Your task to perform on an android device: open app "Google Duo" Image 0: 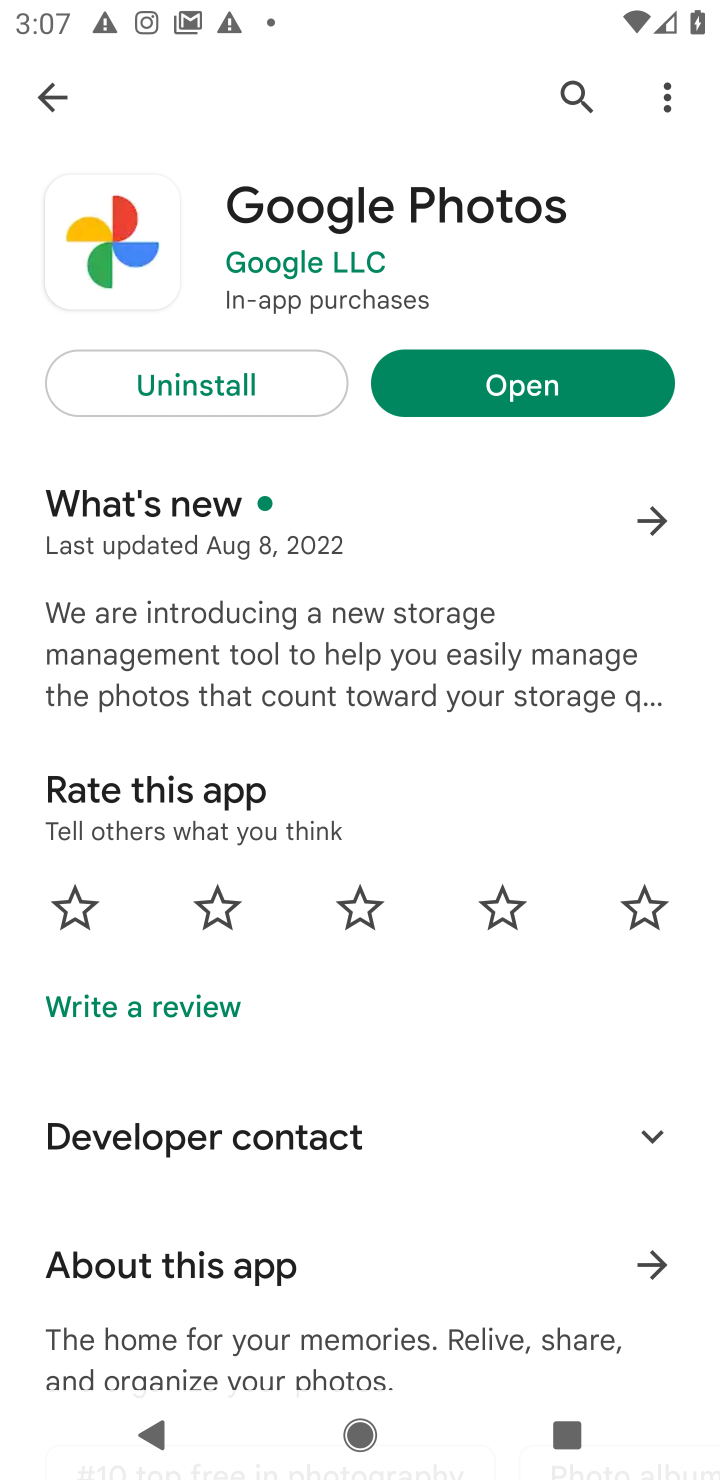
Step 0: press home button
Your task to perform on an android device: open app "Google Duo" Image 1: 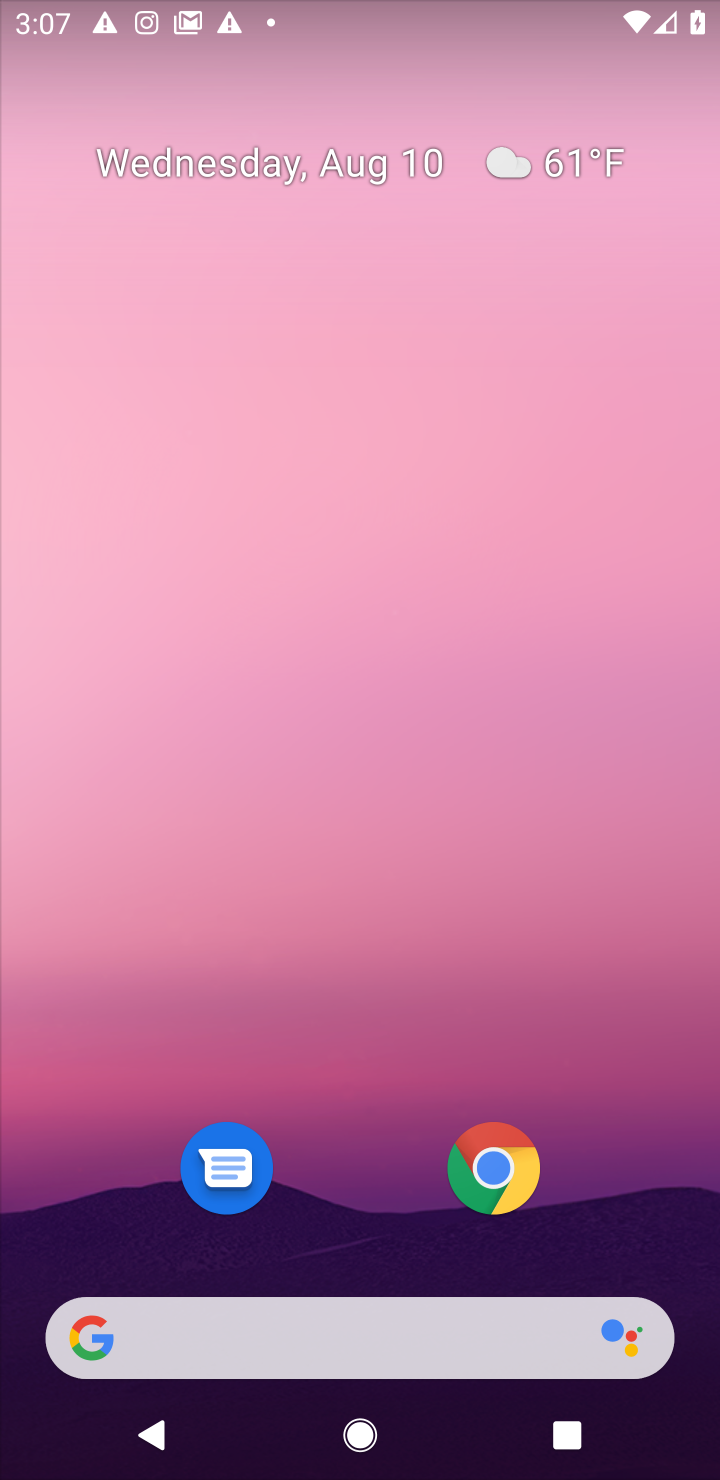
Step 1: drag from (330, 1309) to (302, 174)
Your task to perform on an android device: open app "Google Duo" Image 2: 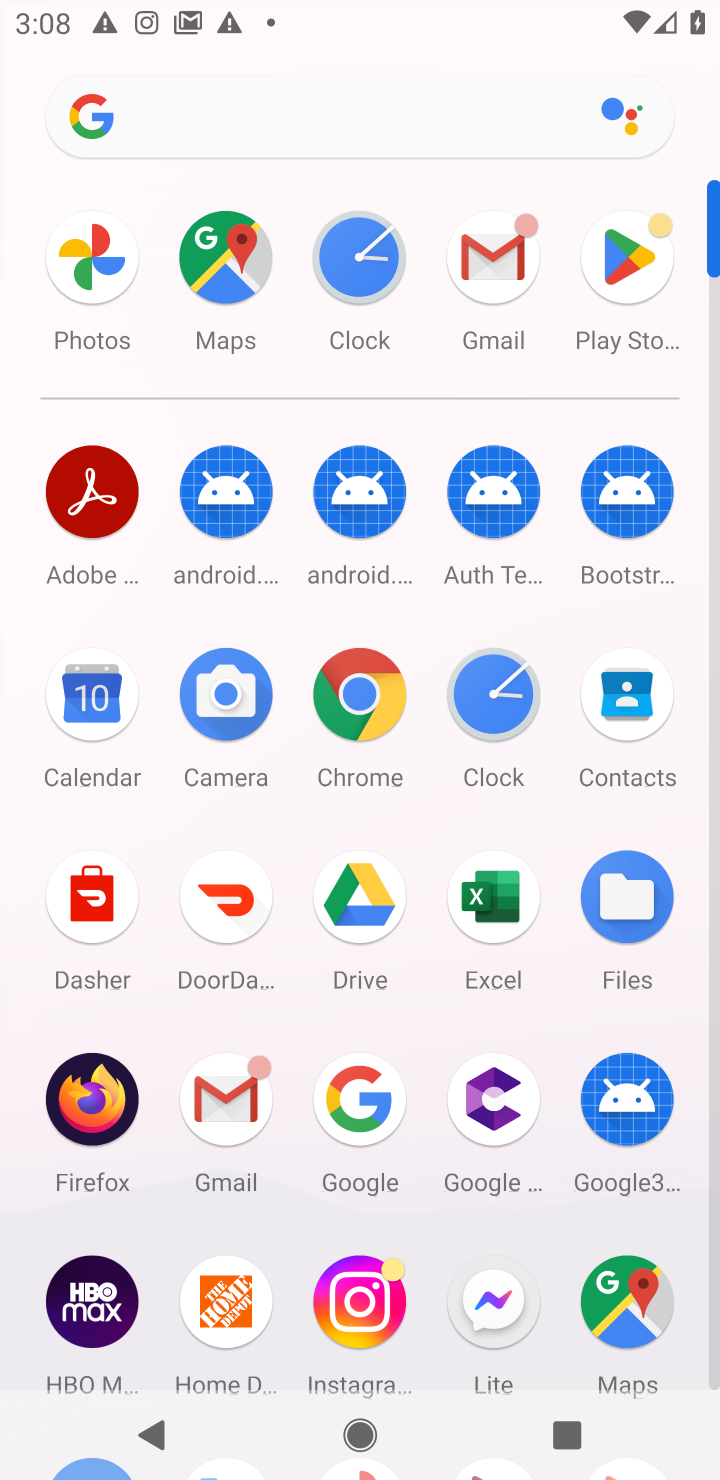
Step 2: click (628, 263)
Your task to perform on an android device: open app "Google Duo" Image 3: 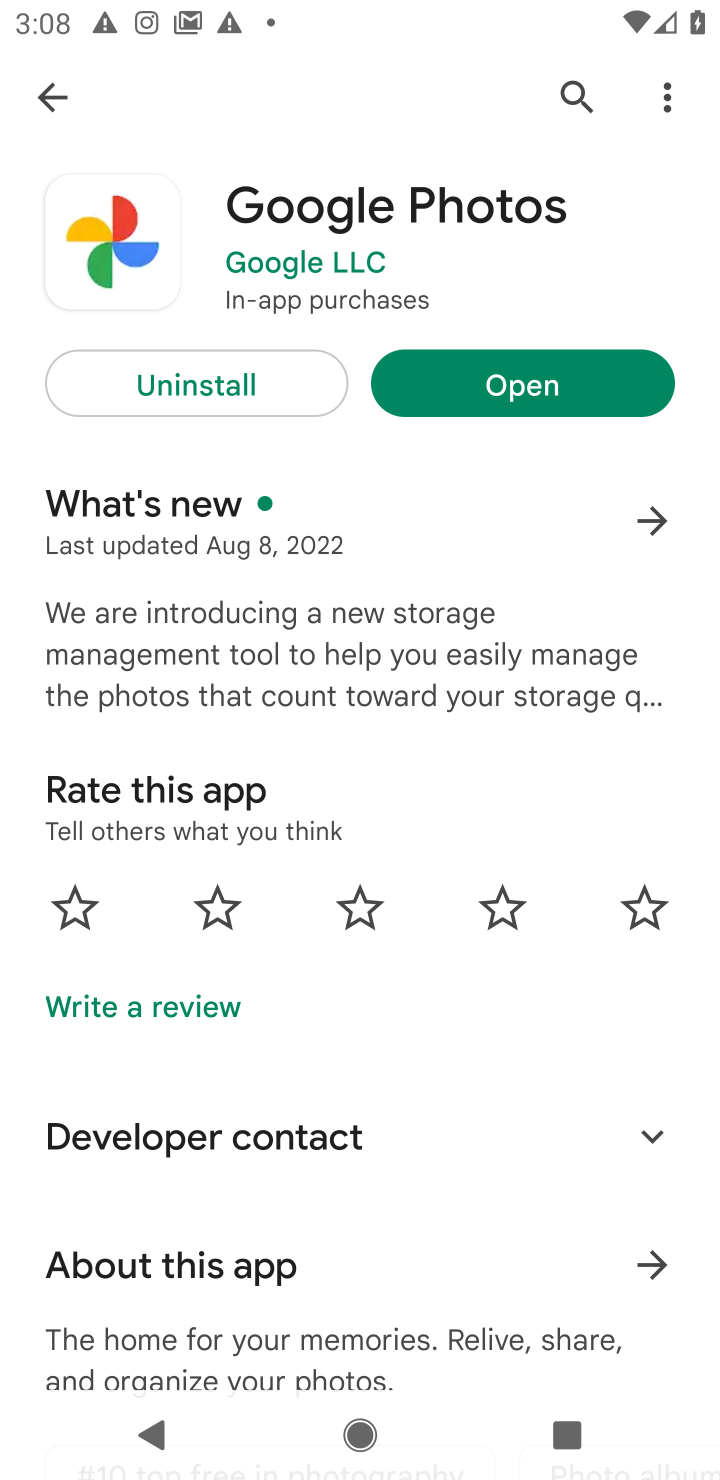
Step 3: press back button
Your task to perform on an android device: open app "Google Duo" Image 4: 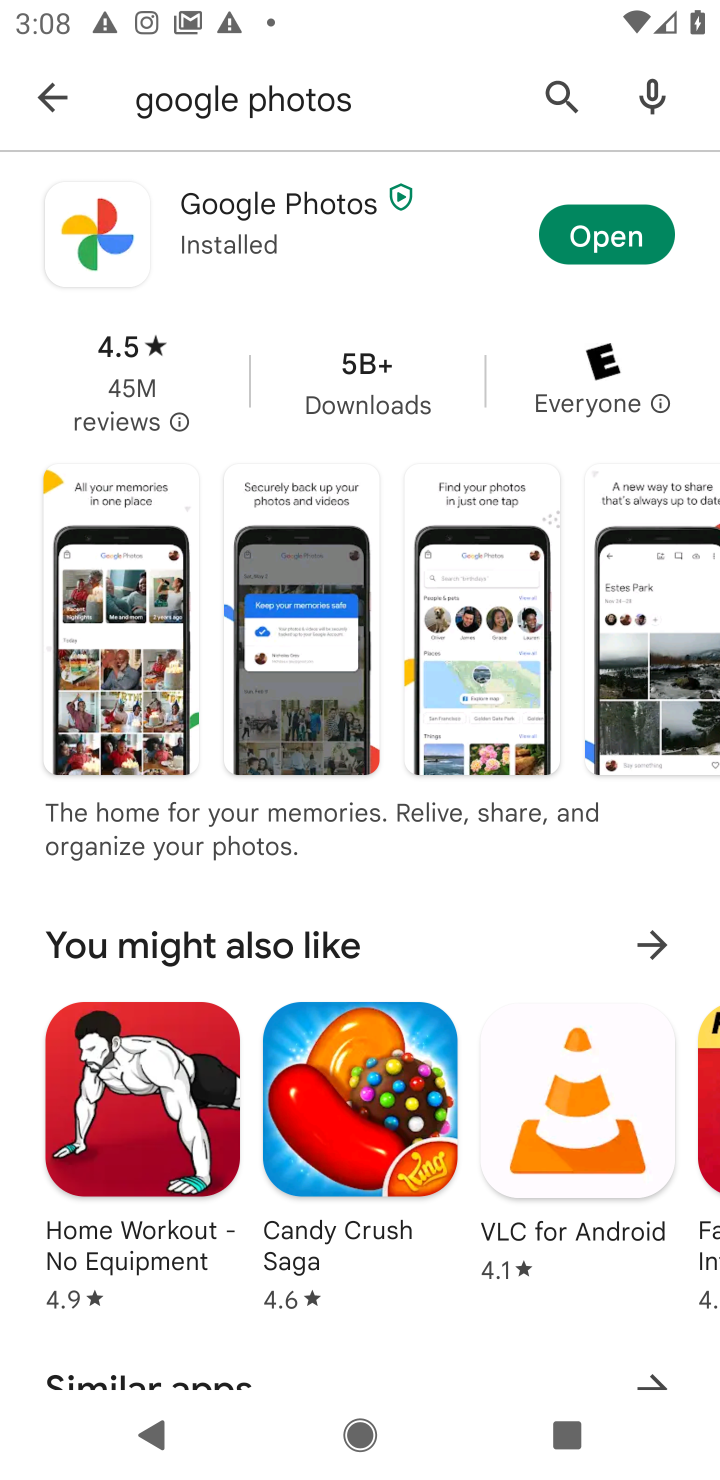
Step 4: press back button
Your task to perform on an android device: open app "Google Duo" Image 5: 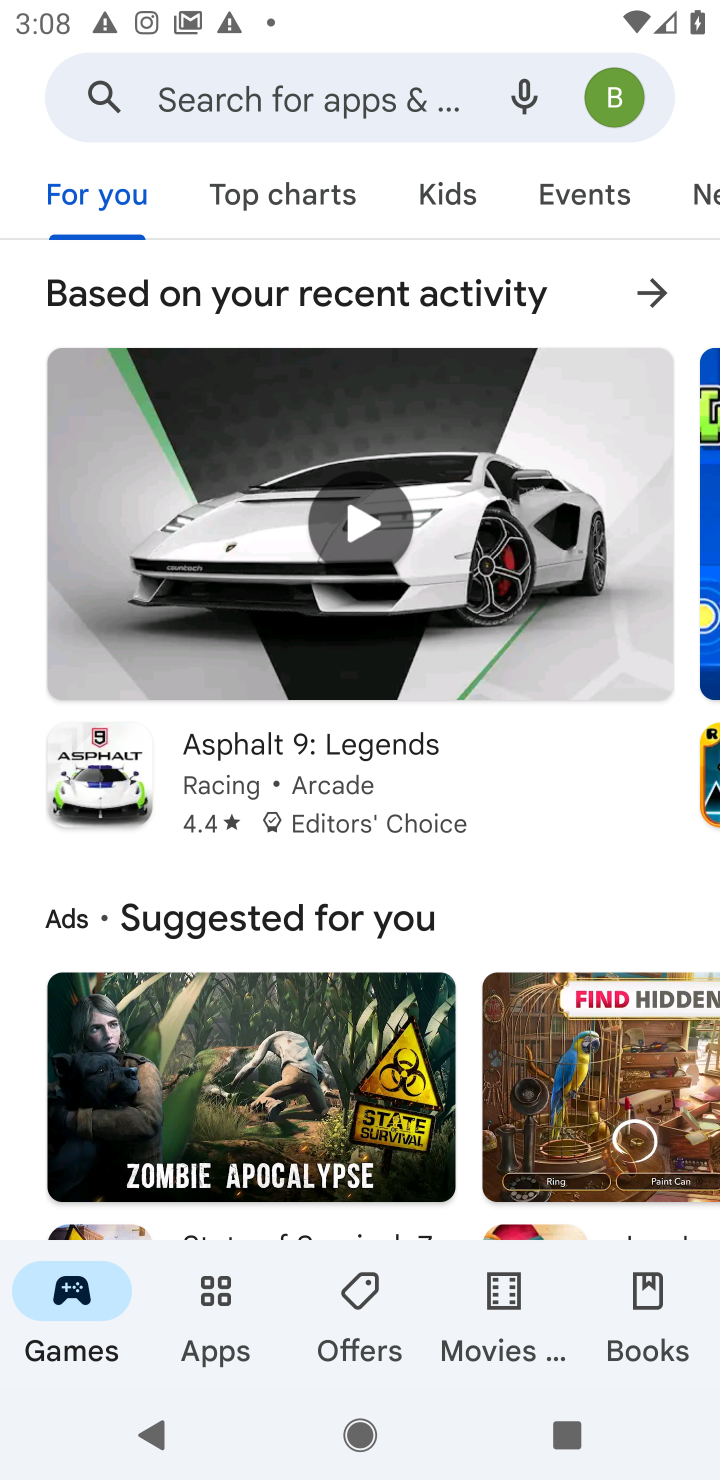
Step 5: click (368, 104)
Your task to perform on an android device: open app "Google Duo" Image 6: 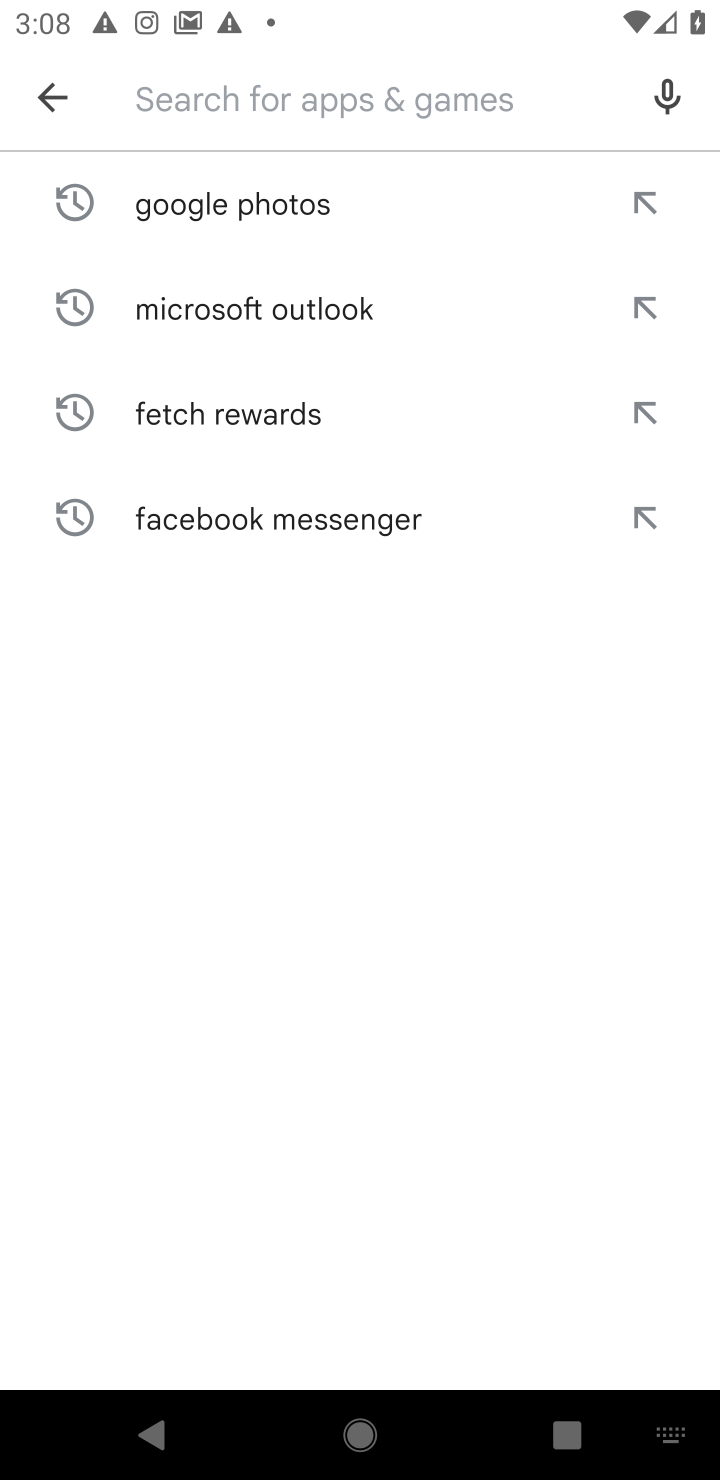
Step 6: type "Google Duo"
Your task to perform on an android device: open app "Google Duo" Image 7: 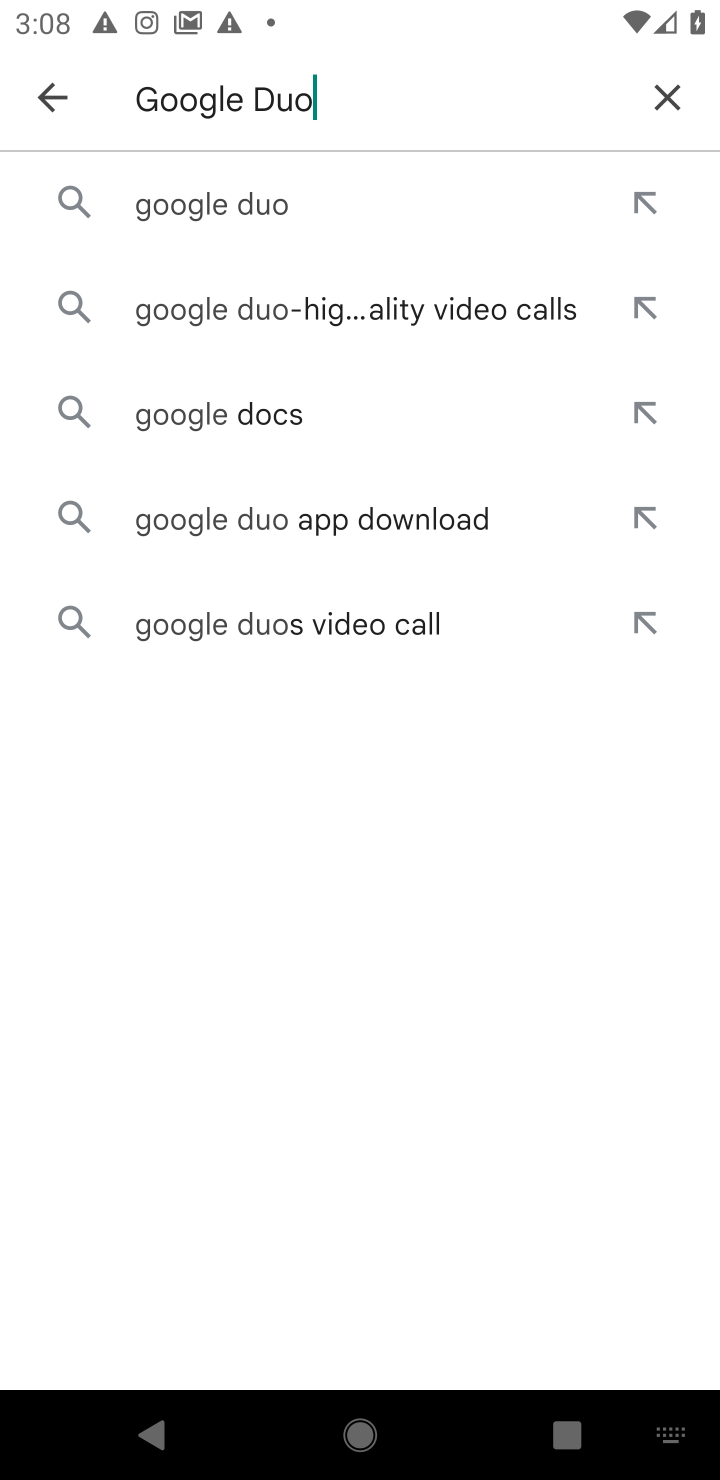
Step 7: click (234, 223)
Your task to perform on an android device: open app "Google Duo" Image 8: 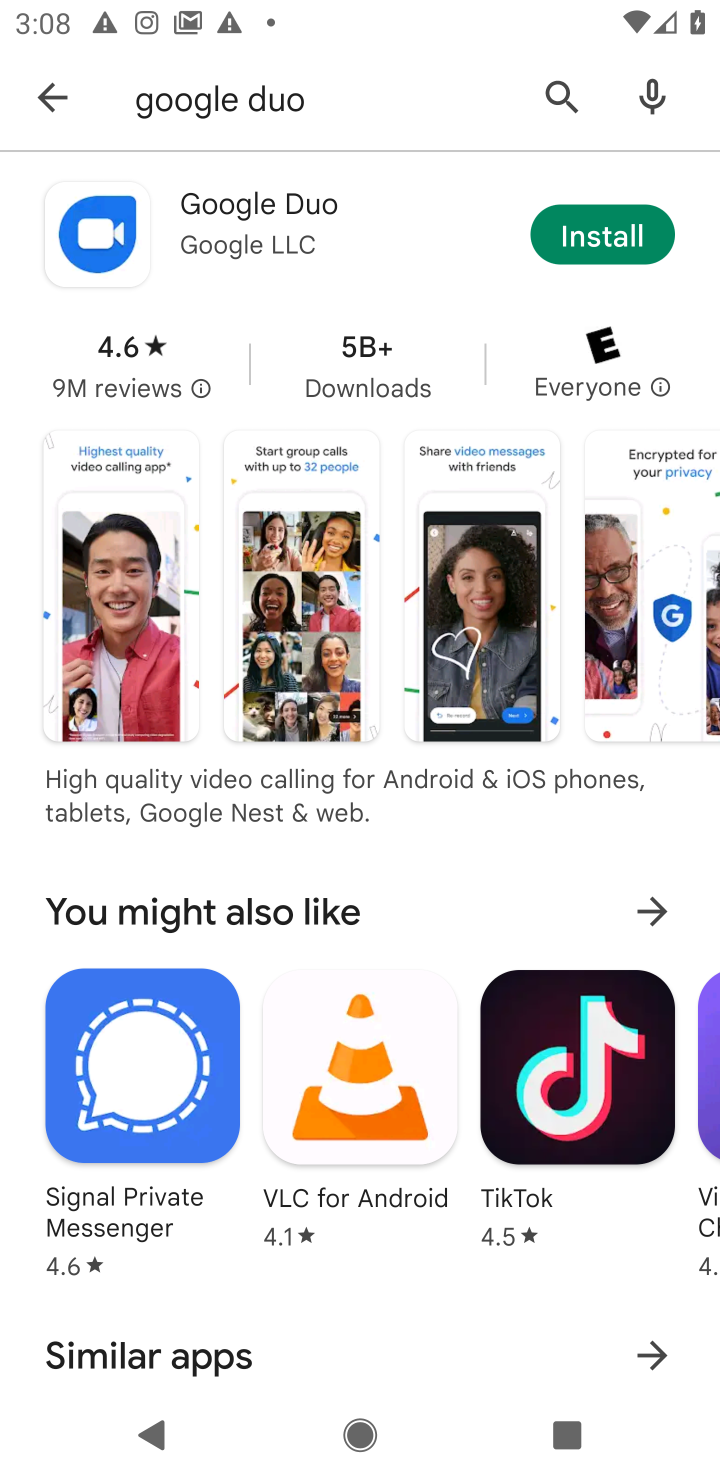
Step 8: task complete